Your task to perform on an android device: Search for pizza restaurants on Maps Image 0: 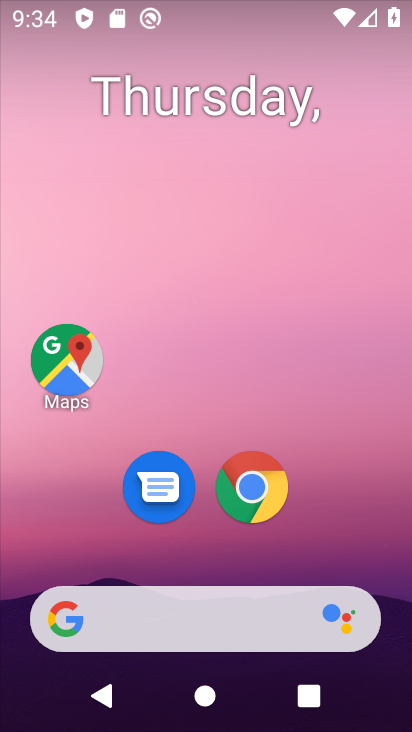
Step 0: click (70, 377)
Your task to perform on an android device: Search for pizza restaurants on Maps Image 1: 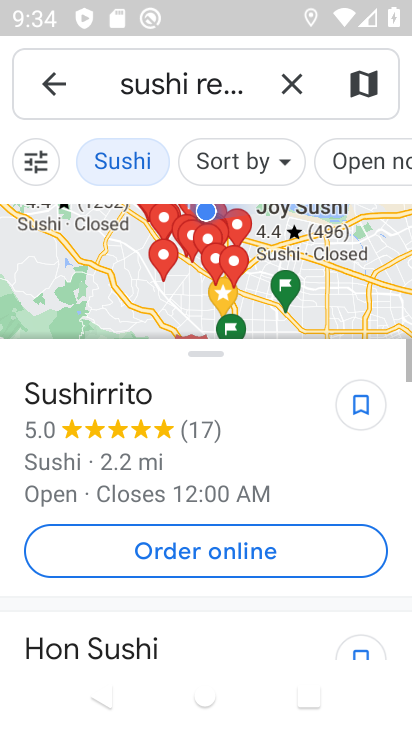
Step 1: click (293, 90)
Your task to perform on an android device: Search for pizza restaurants on Maps Image 2: 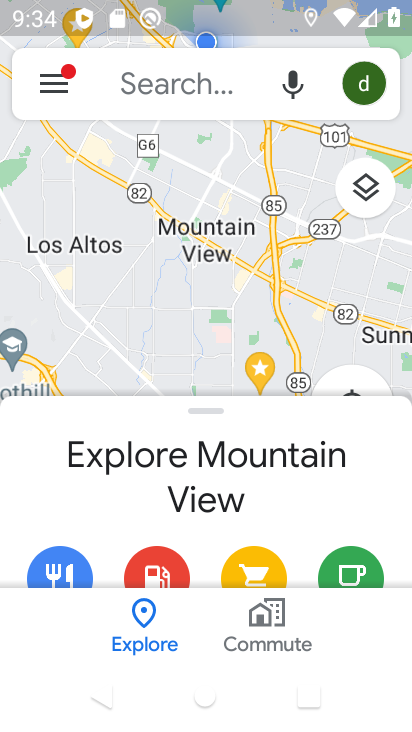
Step 2: click (240, 85)
Your task to perform on an android device: Search for pizza restaurants on Maps Image 3: 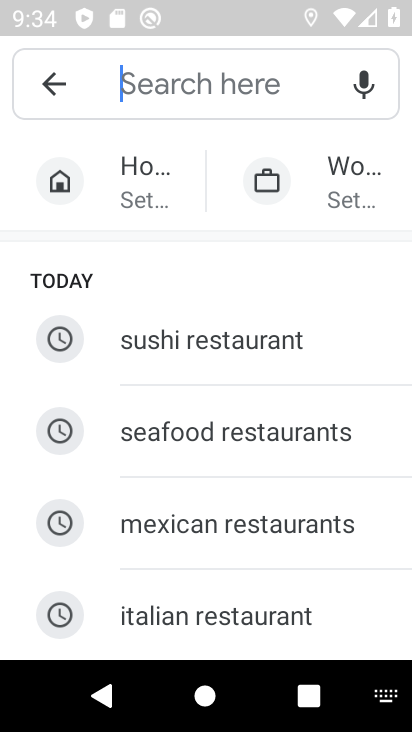
Step 3: drag from (236, 568) to (218, 203)
Your task to perform on an android device: Search for pizza restaurants on Maps Image 4: 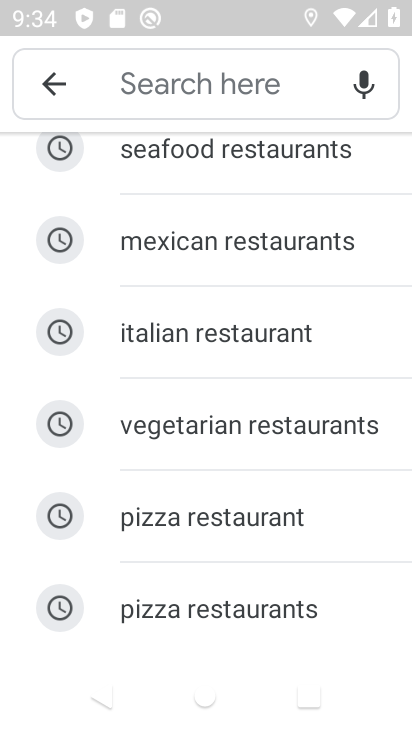
Step 4: click (172, 521)
Your task to perform on an android device: Search for pizza restaurants on Maps Image 5: 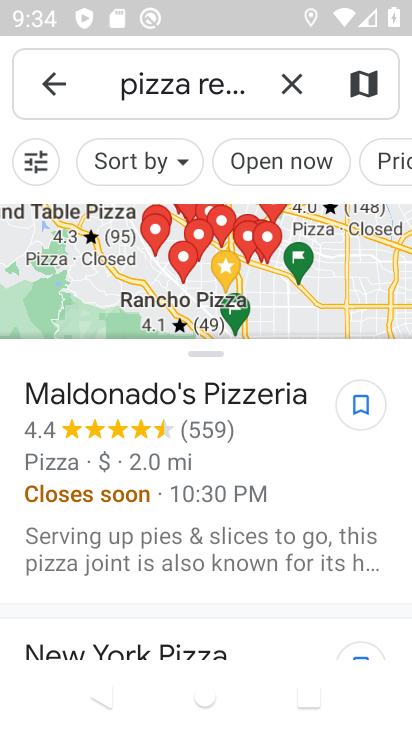
Step 5: task complete